Your task to perform on an android device: Open the calendar and show me this week's events Image 0: 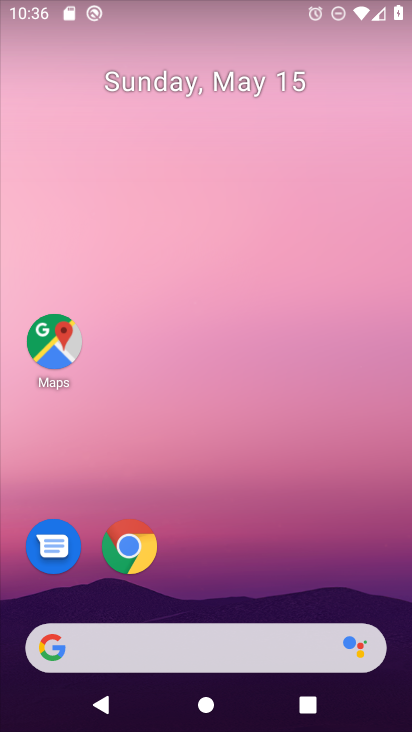
Step 0: drag from (335, 567) to (181, 149)
Your task to perform on an android device: Open the calendar and show me this week's events Image 1: 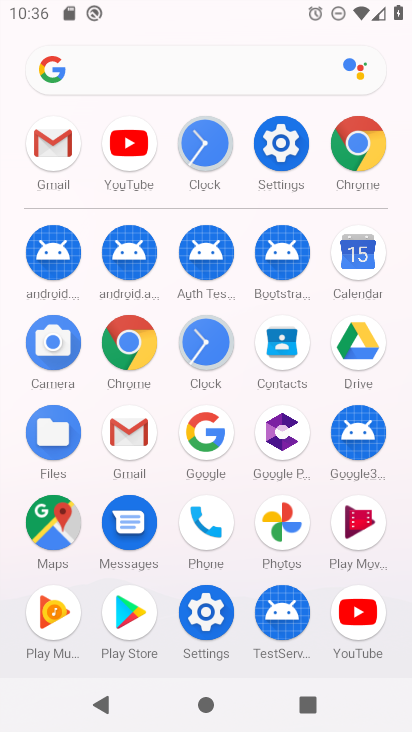
Step 1: click (354, 250)
Your task to perform on an android device: Open the calendar and show me this week's events Image 2: 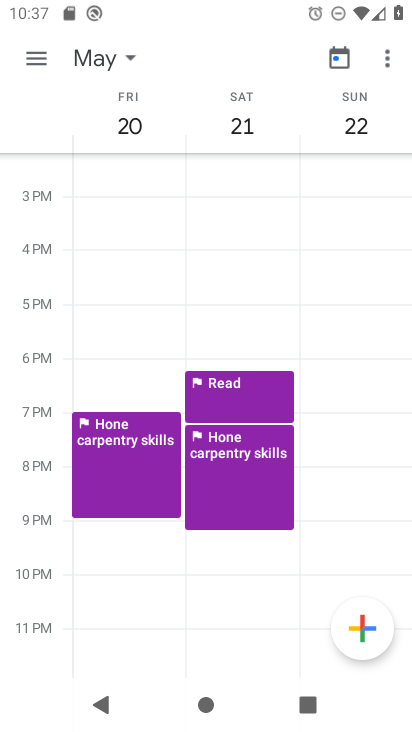
Step 2: click (94, 61)
Your task to perform on an android device: Open the calendar and show me this week's events Image 3: 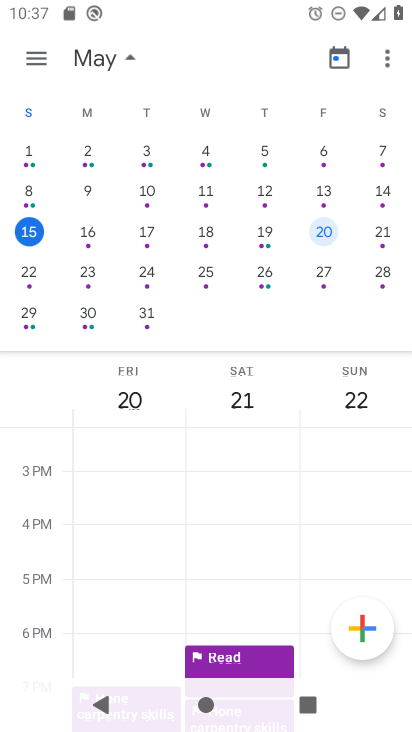
Step 3: click (101, 60)
Your task to perform on an android device: Open the calendar and show me this week's events Image 4: 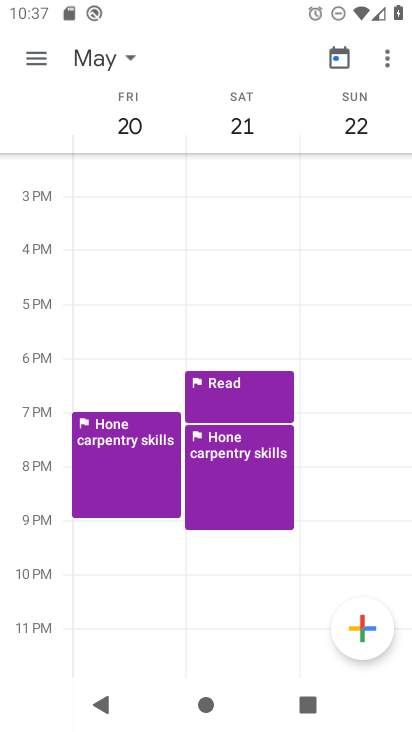
Step 4: click (38, 56)
Your task to perform on an android device: Open the calendar and show me this week's events Image 5: 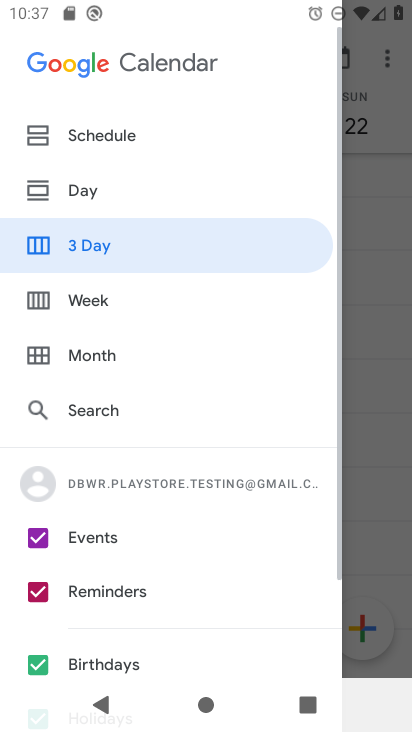
Step 5: click (95, 300)
Your task to perform on an android device: Open the calendar and show me this week's events Image 6: 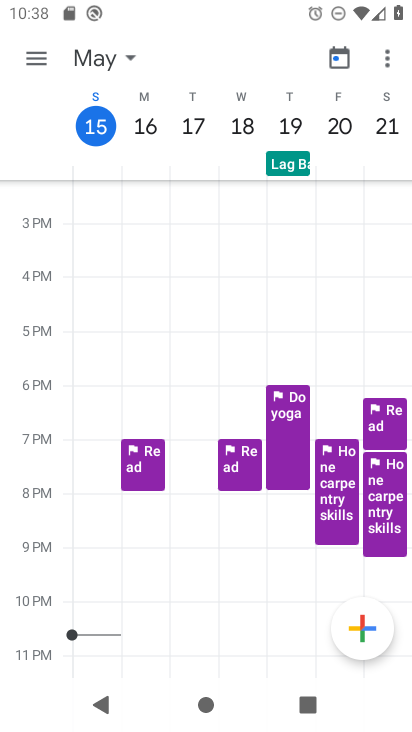
Step 6: task complete